Your task to perform on an android device: Show me productivity apps on the Play Store Image 0: 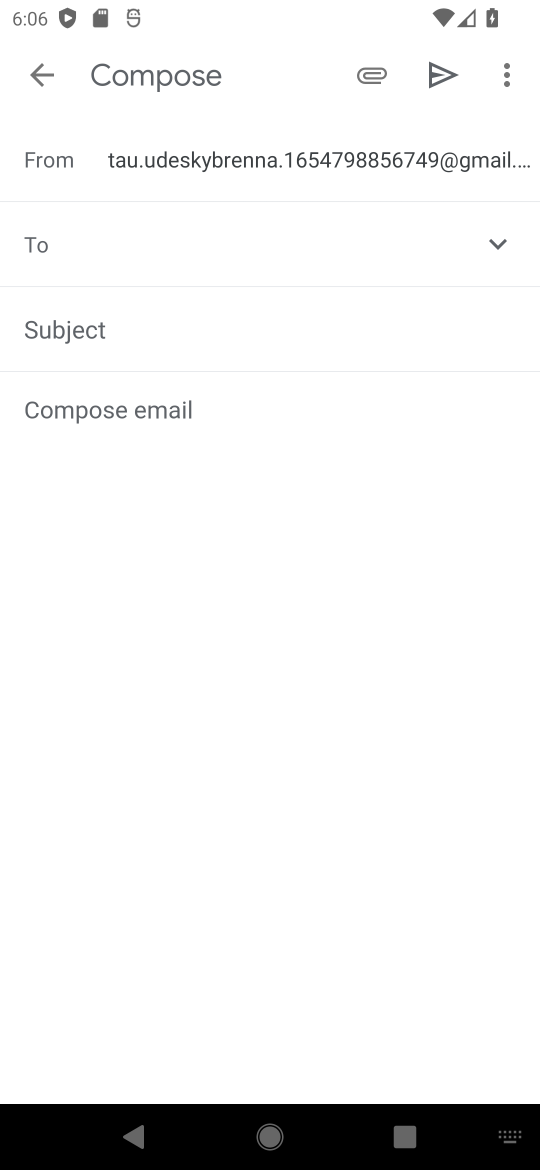
Step 0: press home button
Your task to perform on an android device: Show me productivity apps on the Play Store Image 1: 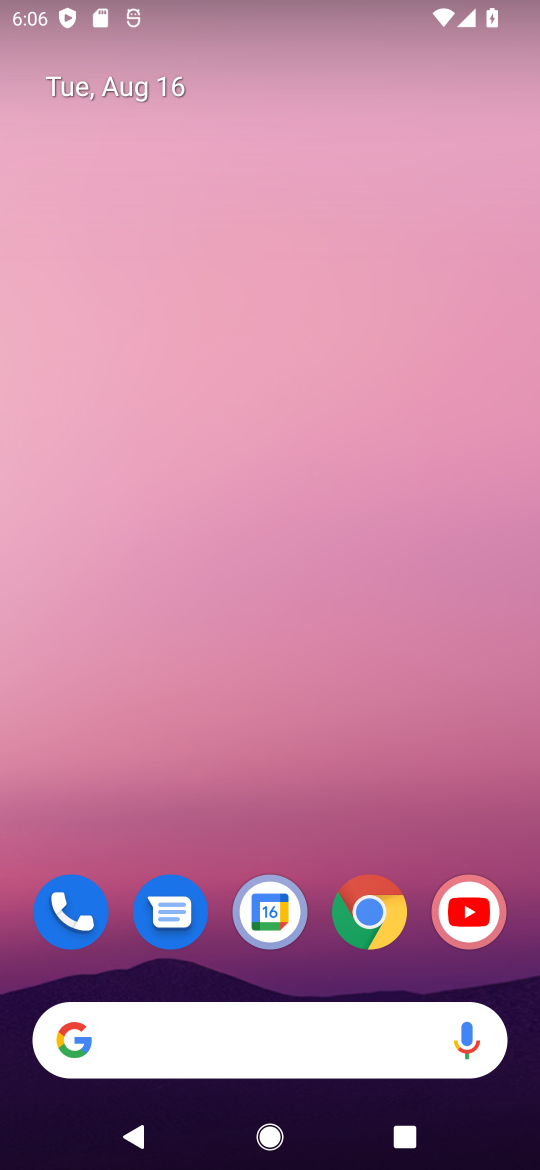
Step 1: drag from (417, 962) to (388, 256)
Your task to perform on an android device: Show me productivity apps on the Play Store Image 2: 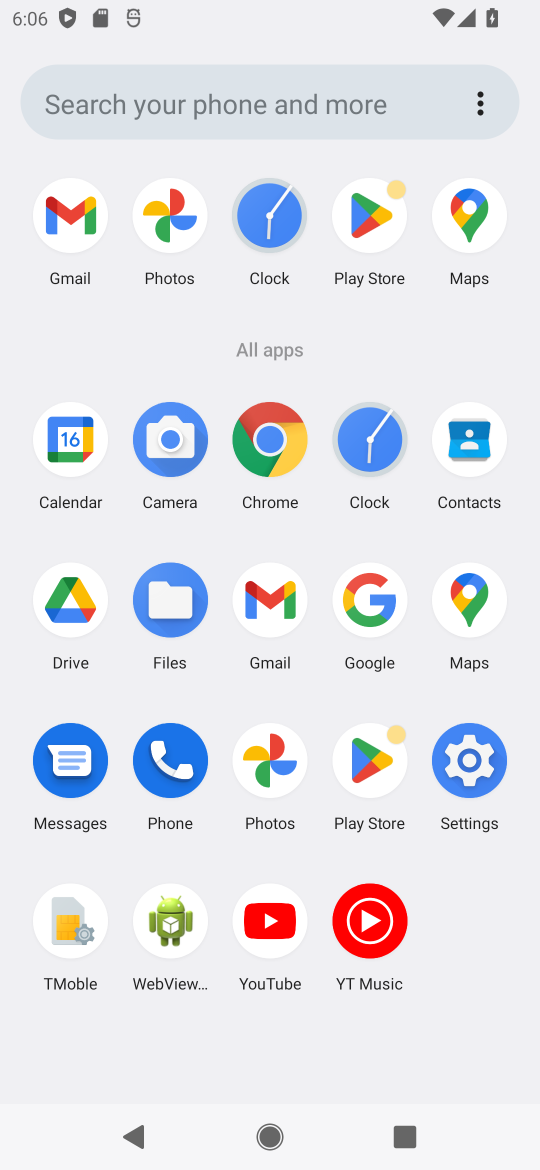
Step 2: click (375, 759)
Your task to perform on an android device: Show me productivity apps on the Play Store Image 3: 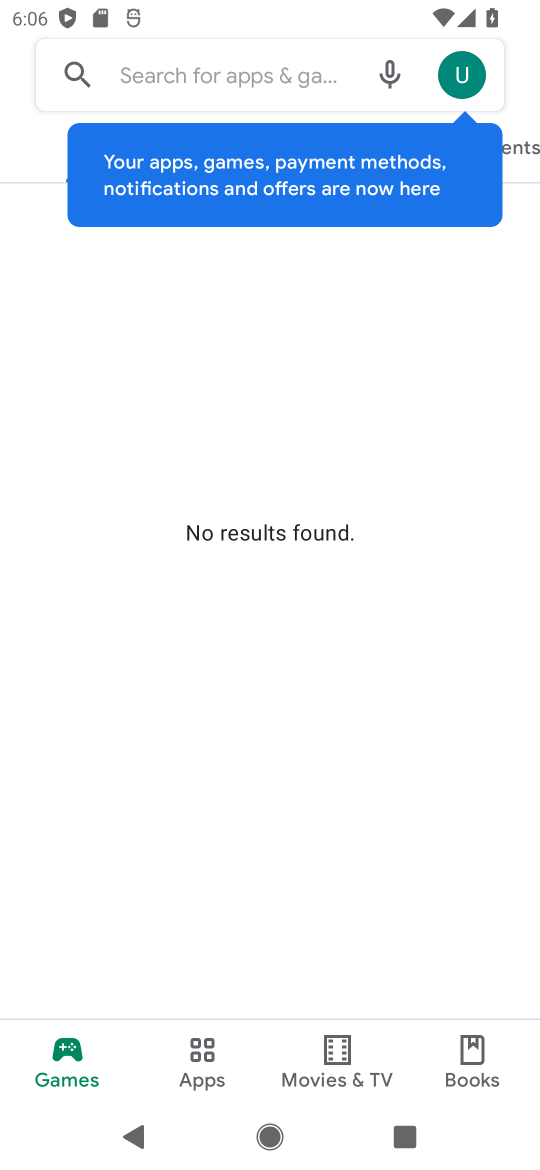
Step 3: click (209, 1060)
Your task to perform on an android device: Show me productivity apps on the Play Store Image 4: 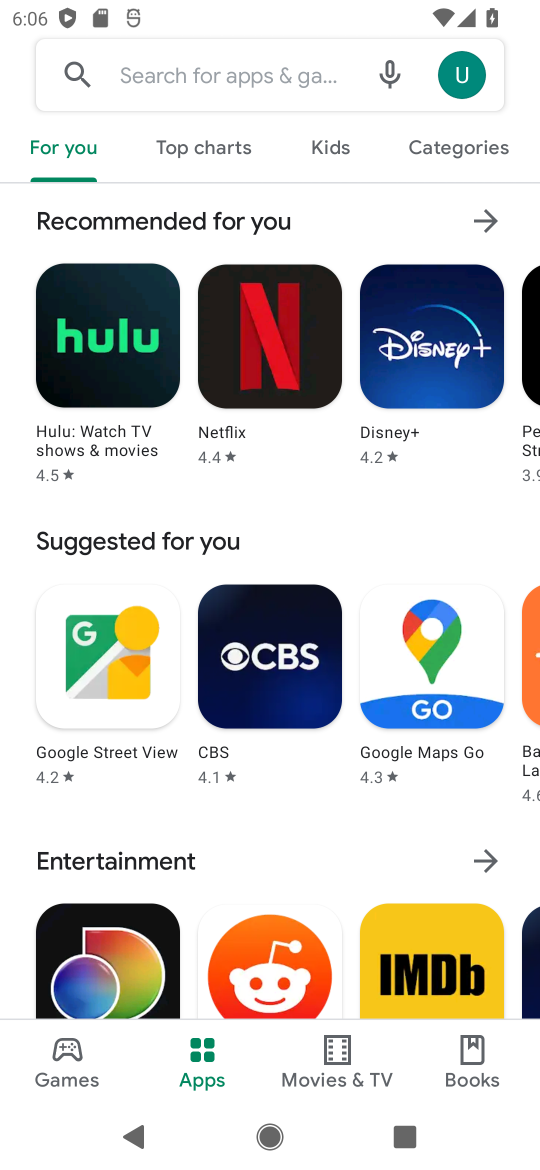
Step 4: click (458, 143)
Your task to perform on an android device: Show me productivity apps on the Play Store Image 5: 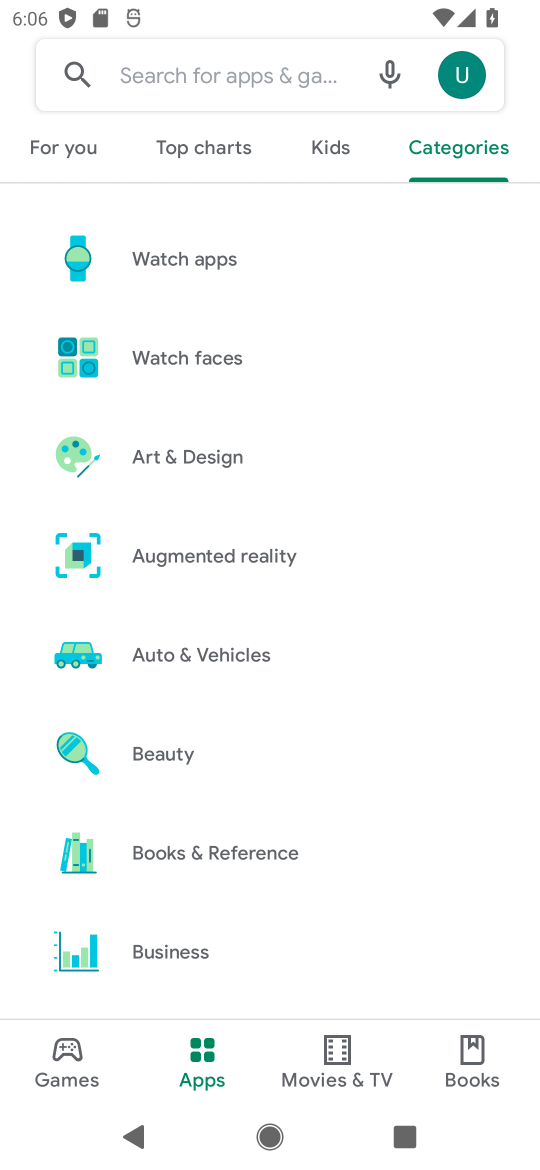
Step 5: drag from (296, 961) to (340, 301)
Your task to perform on an android device: Show me productivity apps on the Play Store Image 6: 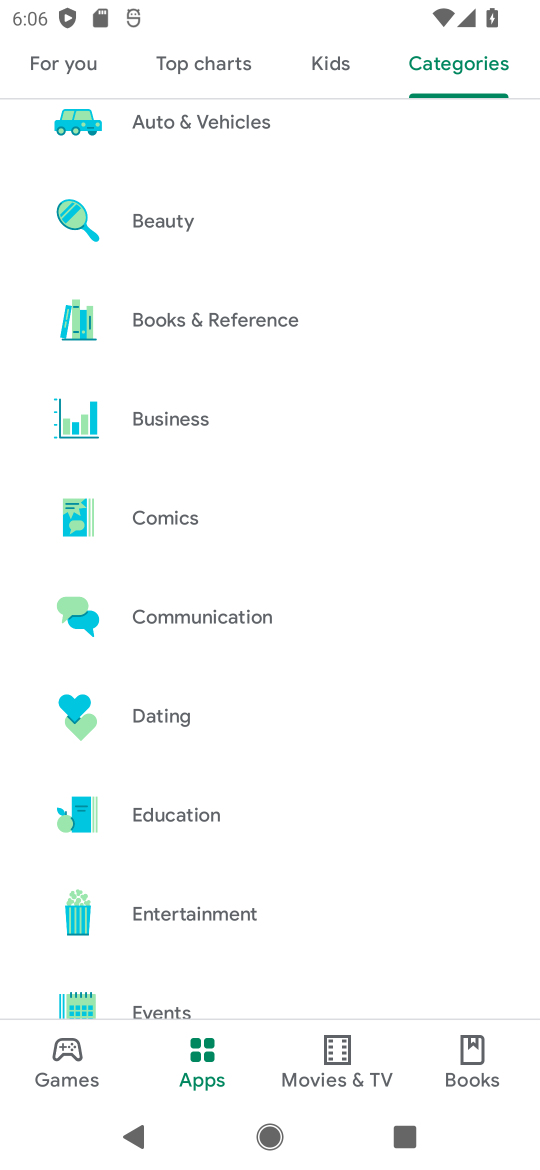
Step 6: drag from (319, 987) to (325, 235)
Your task to perform on an android device: Show me productivity apps on the Play Store Image 7: 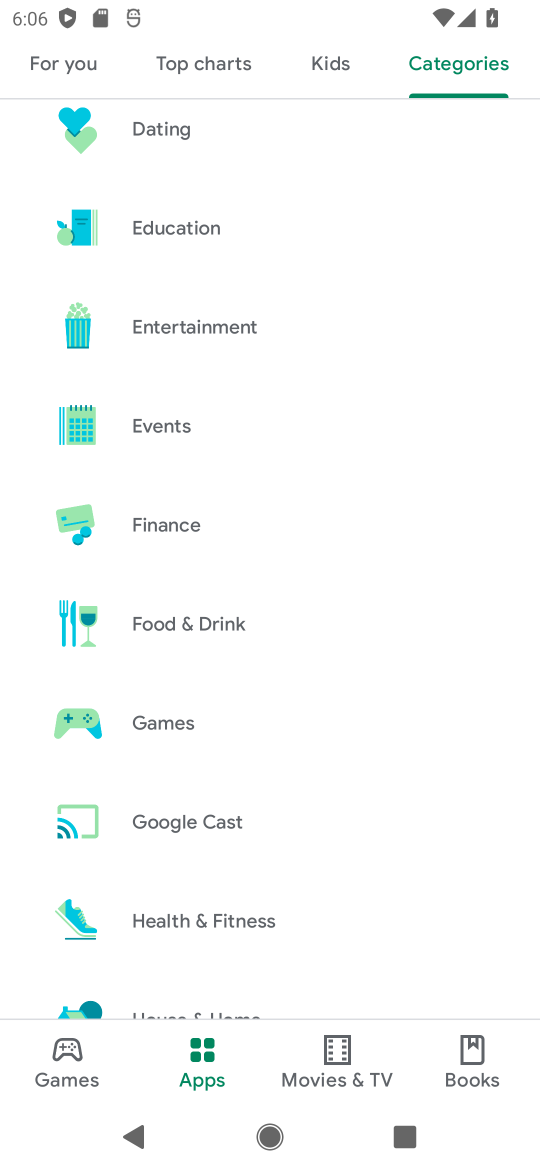
Step 7: drag from (360, 976) to (302, 262)
Your task to perform on an android device: Show me productivity apps on the Play Store Image 8: 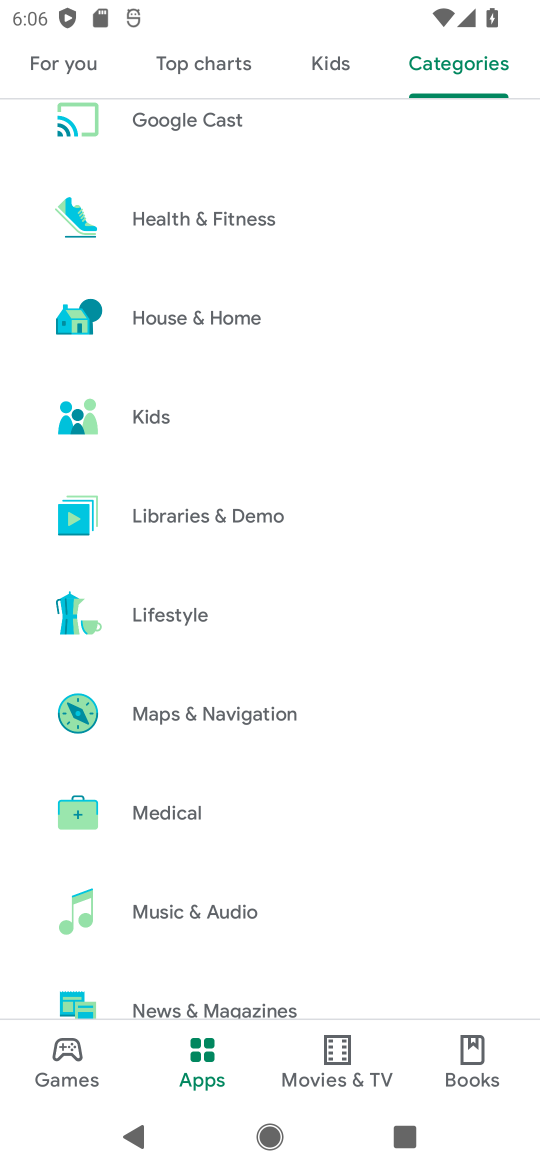
Step 8: drag from (316, 963) to (362, 242)
Your task to perform on an android device: Show me productivity apps on the Play Store Image 9: 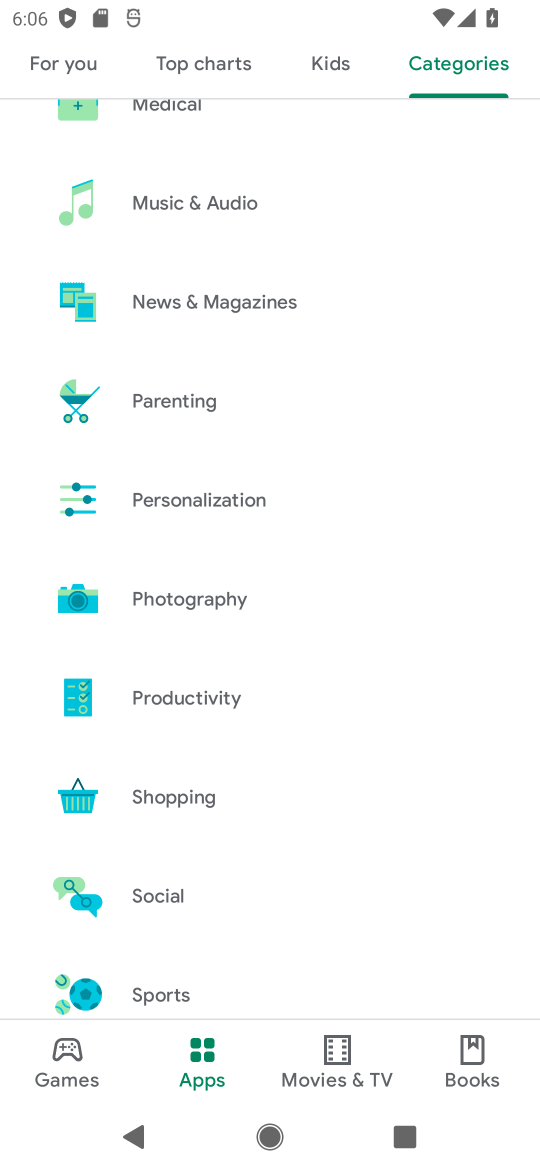
Step 9: click (161, 699)
Your task to perform on an android device: Show me productivity apps on the Play Store Image 10: 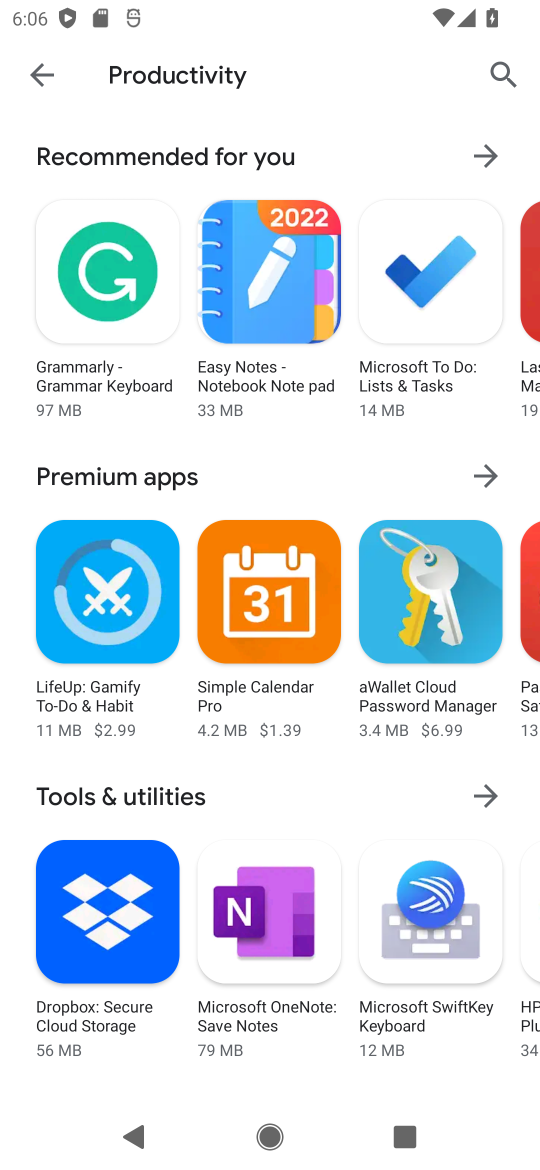
Step 10: drag from (347, 822) to (285, 140)
Your task to perform on an android device: Show me productivity apps on the Play Store Image 11: 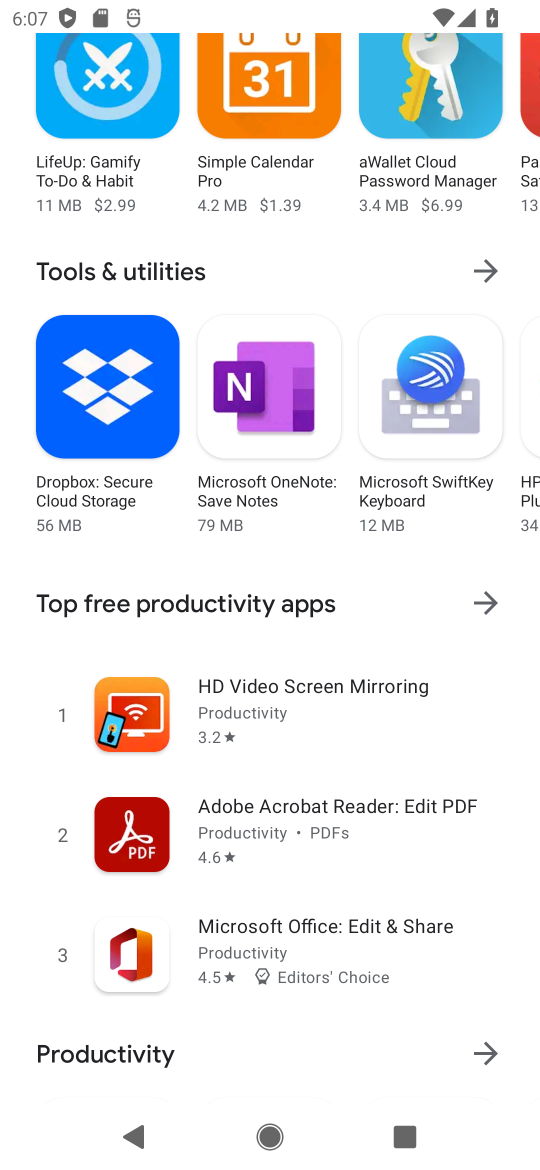
Step 11: drag from (303, 1043) to (300, 291)
Your task to perform on an android device: Show me productivity apps on the Play Store Image 12: 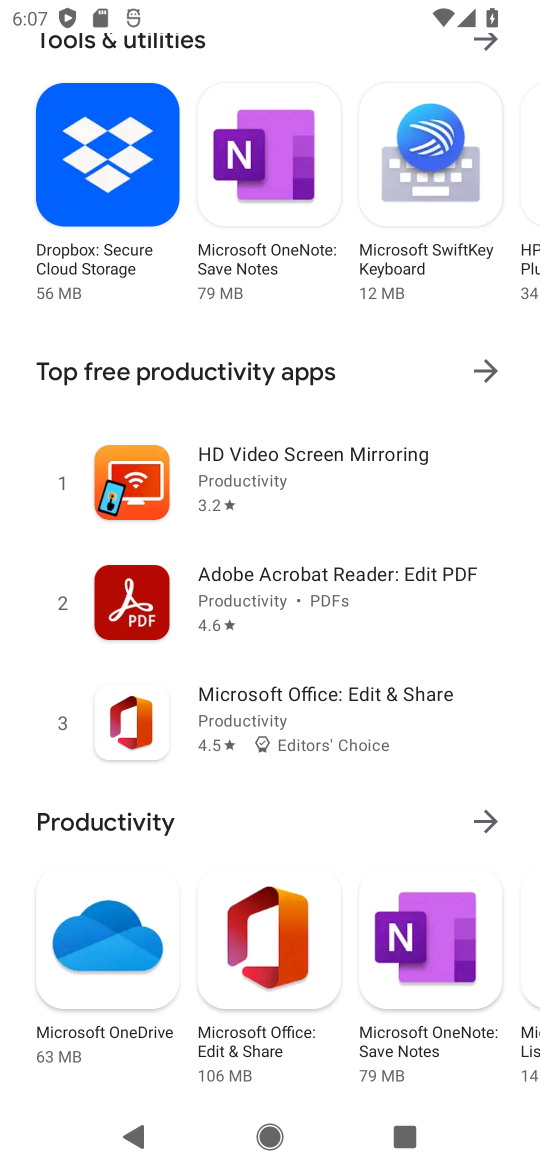
Step 12: click (488, 822)
Your task to perform on an android device: Show me productivity apps on the Play Store Image 13: 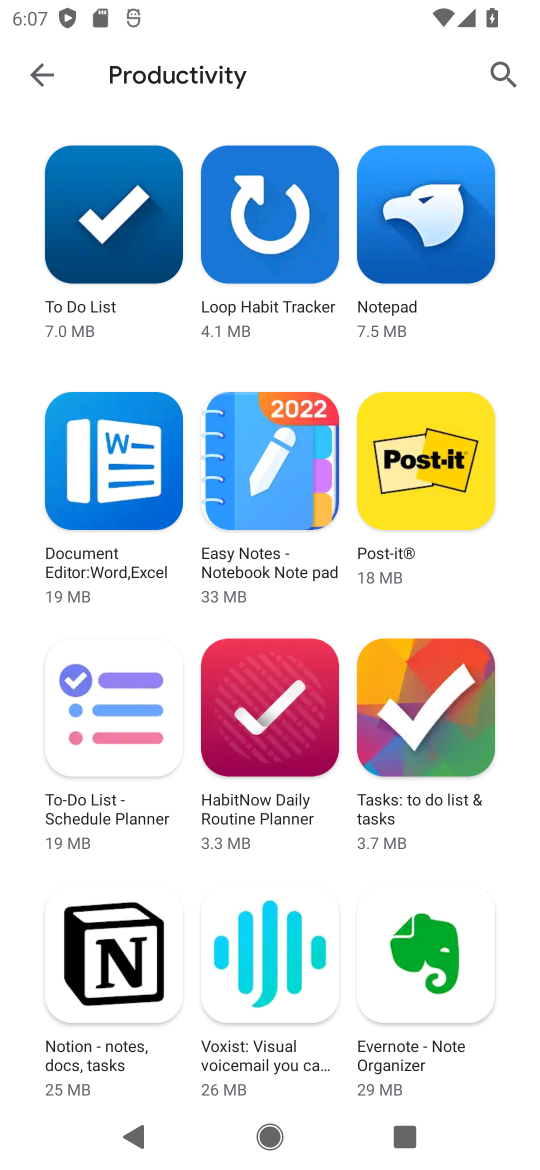
Step 13: task complete